Your task to perform on an android device: Open privacy settings Image 0: 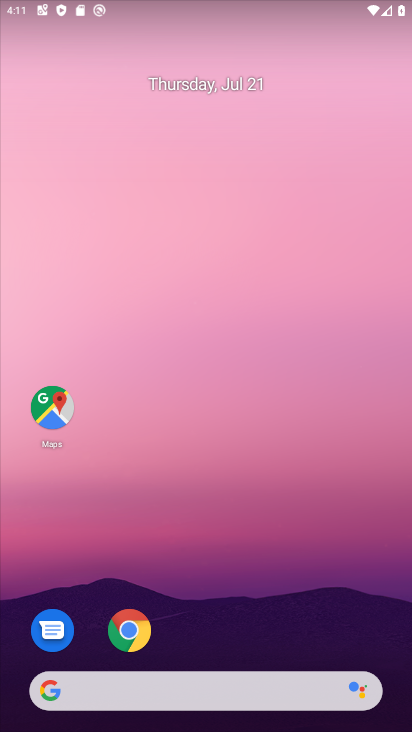
Step 0: drag from (24, 704) to (229, 292)
Your task to perform on an android device: Open privacy settings Image 1: 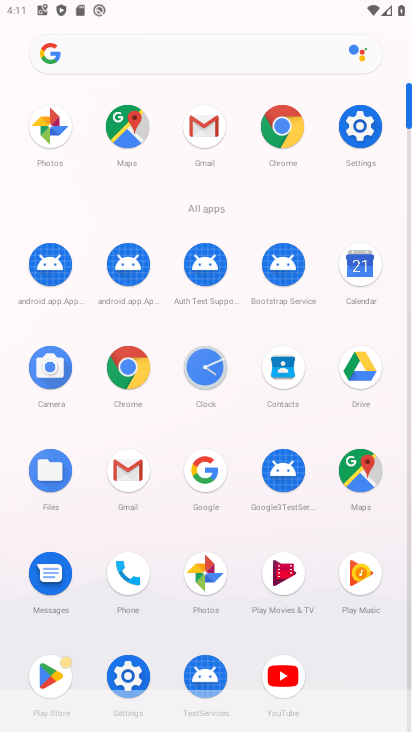
Step 1: click (139, 676)
Your task to perform on an android device: Open privacy settings Image 2: 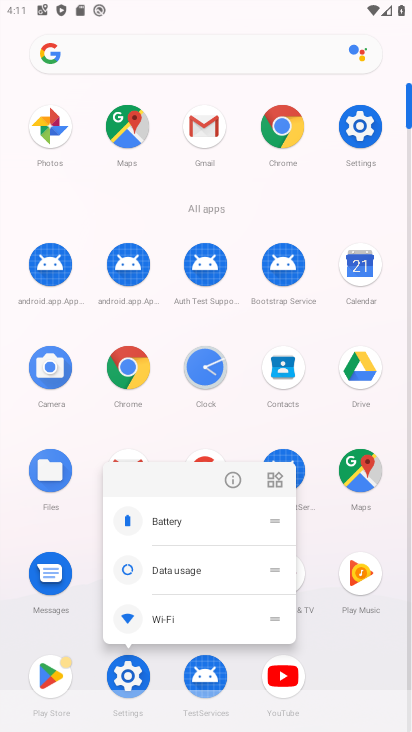
Step 2: click (118, 672)
Your task to perform on an android device: Open privacy settings Image 3: 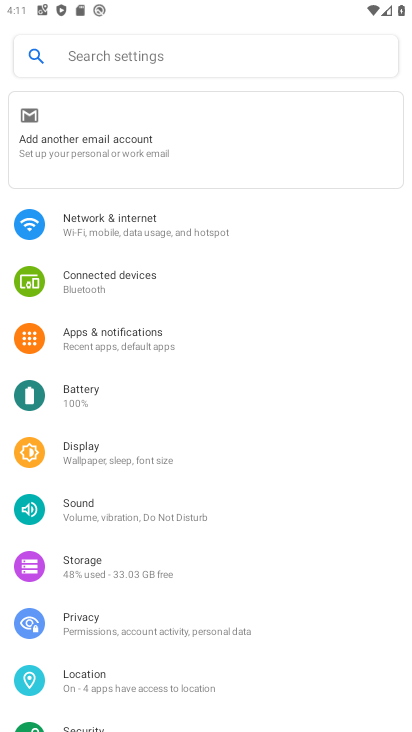
Step 3: click (116, 615)
Your task to perform on an android device: Open privacy settings Image 4: 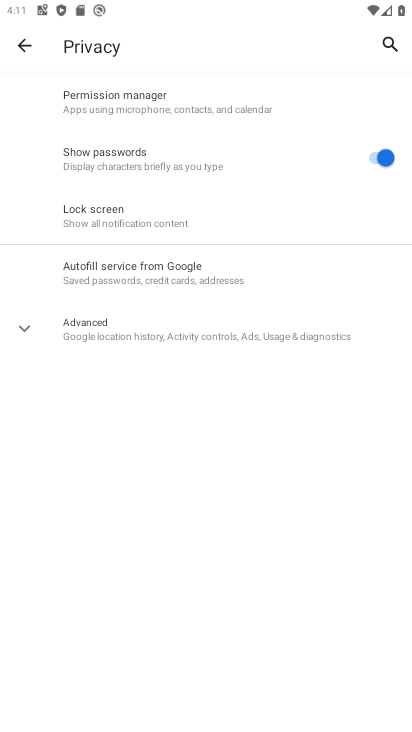
Step 4: task complete